Your task to perform on an android device: Go to Reddit.com Image 0: 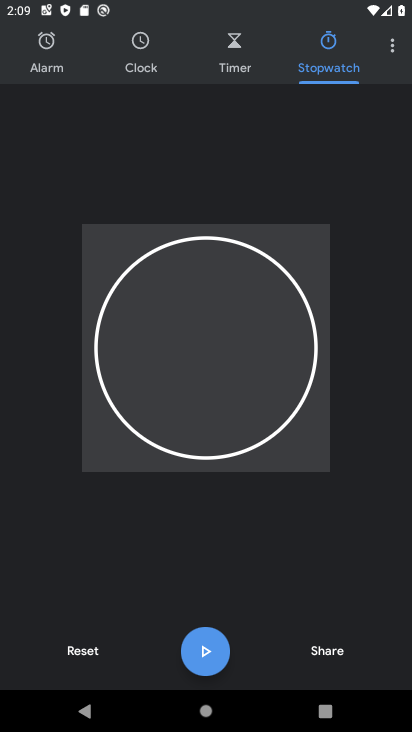
Step 0: press home button
Your task to perform on an android device: Go to Reddit.com Image 1: 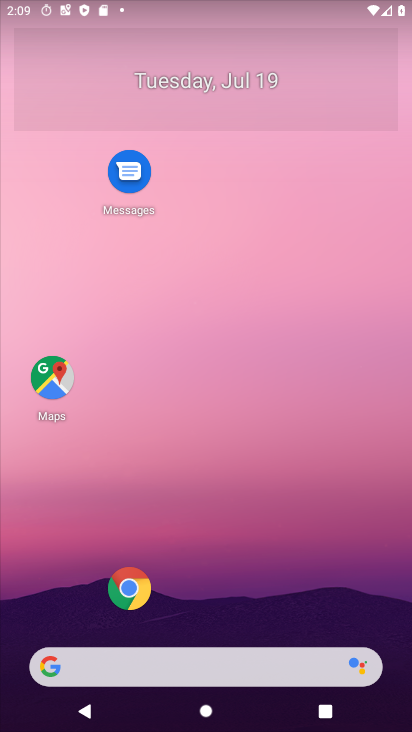
Step 1: click (103, 669)
Your task to perform on an android device: Go to Reddit.com Image 2: 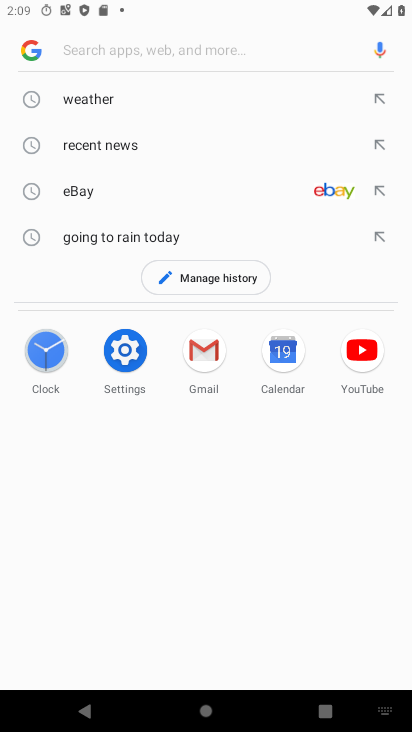
Step 2: type " Reddit.com"
Your task to perform on an android device: Go to Reddit.com Image 3: 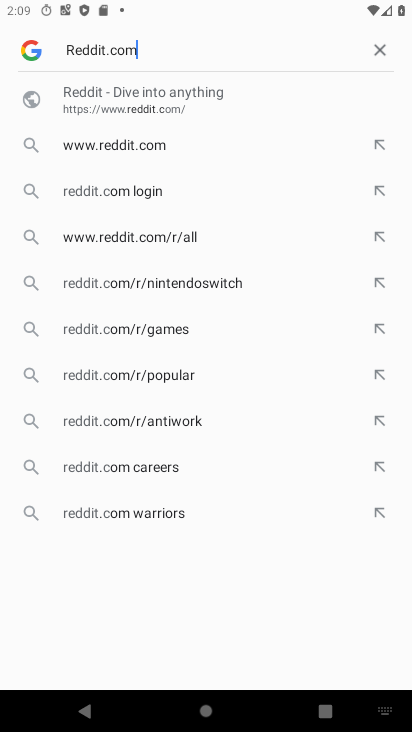
Step 3: type ""
Your task to perform on an android device: Go to Reddit.com Image 4: 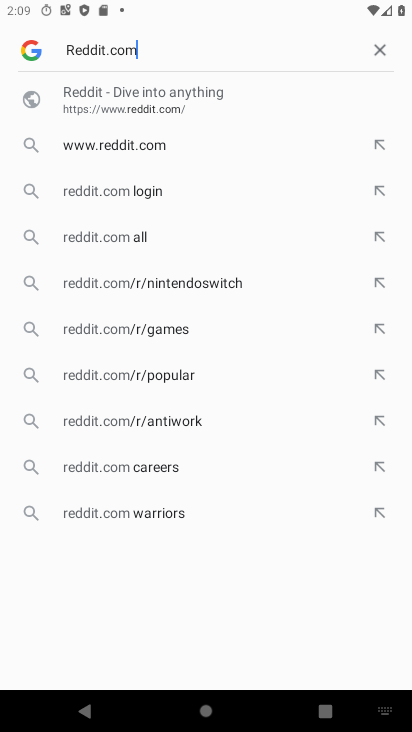
Step 4: type ""
Your task to perform on an android device: Go to Reddit.com Image 5: 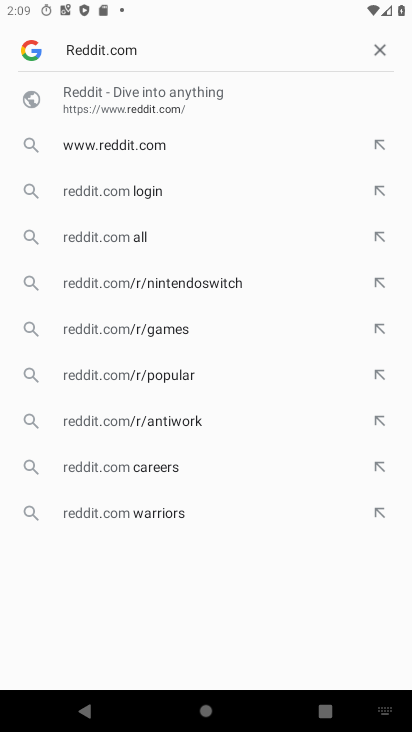
Step 5: type ""
Your task to perform on an android device: Go to Reddit.com Image 6: 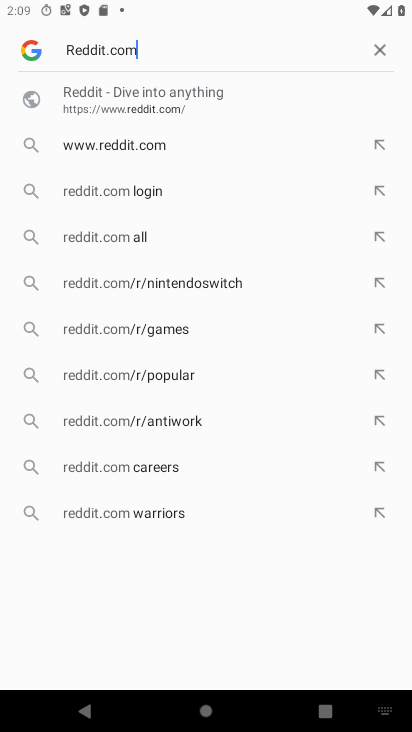
Step 6: task complete